Your task to perform on an android device: Open a new incognito tab in the chrome app Image 0: 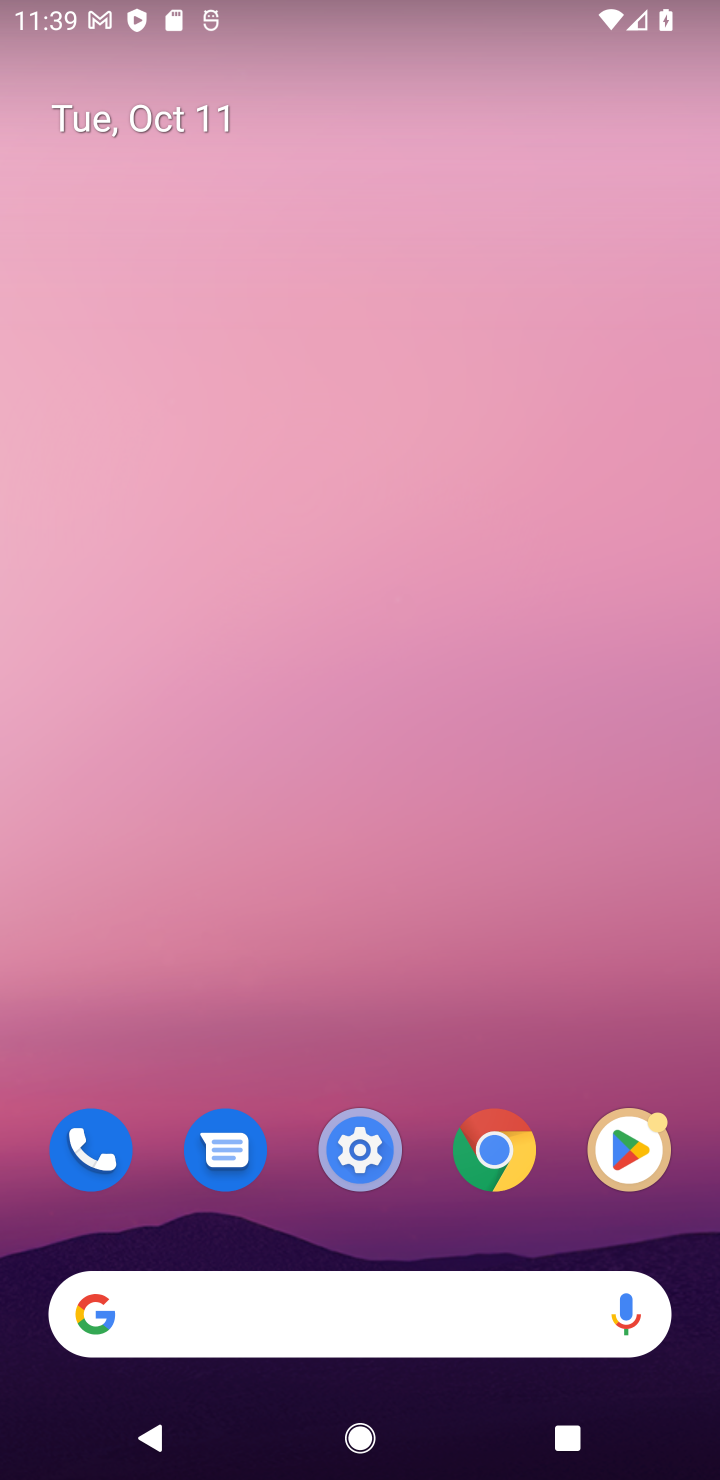
Step 0: press home button
Your task to perform on an android device: Open a new incognito tab in the chrome app Image 1: 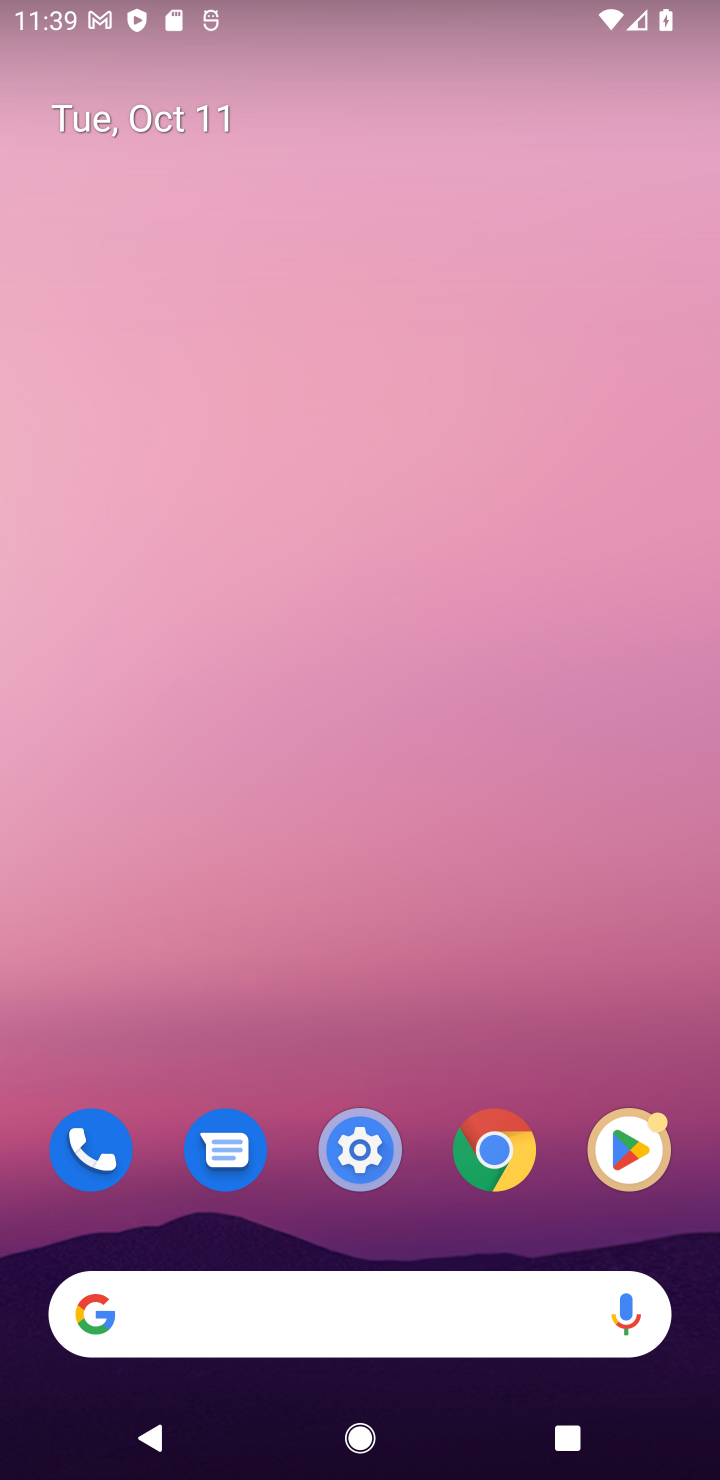
Step 1: click (491, 1161)
Your task to perform on an android device: Open a new incognito tab in the chrome app Image 2: 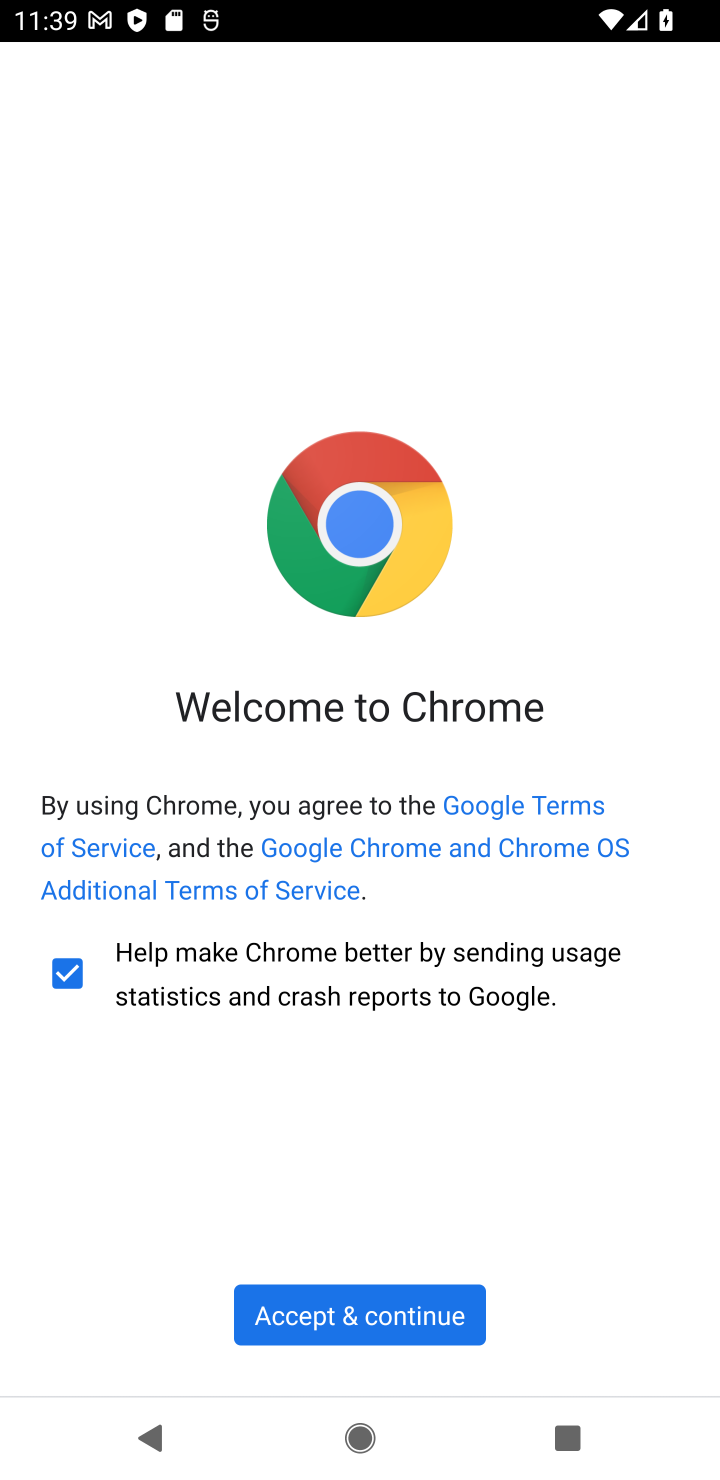
Step 2: click (404, 1297)
Your task to perform on an android device: Open a new incognito tab in the chrome app Image 3: 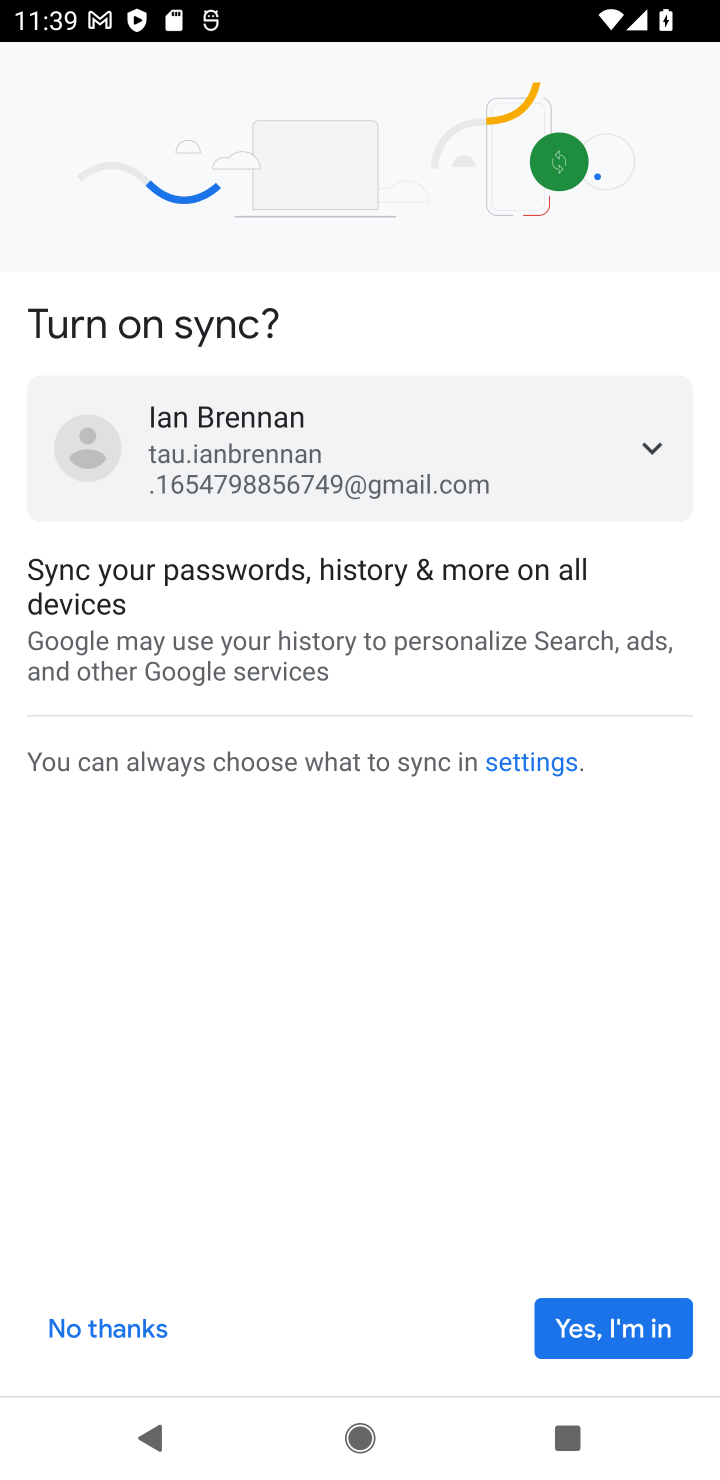
Step 3: click (578, 1345)
Your task to perform on an android device: Open a new incognito tab in the chrome app Image 4: 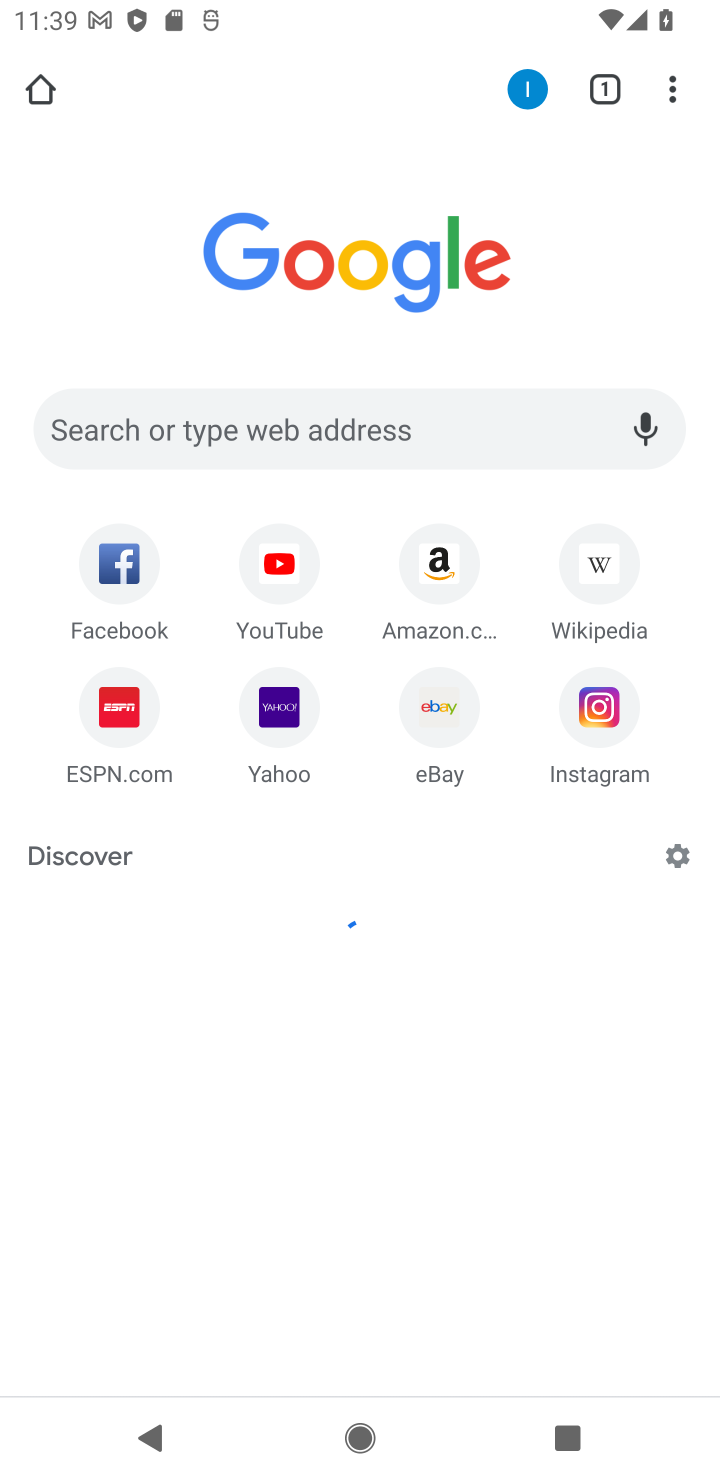
Step 4: click (671, 89)
Your task to perform on an android device: Open a new incognito tab in the chrome app Image 5: 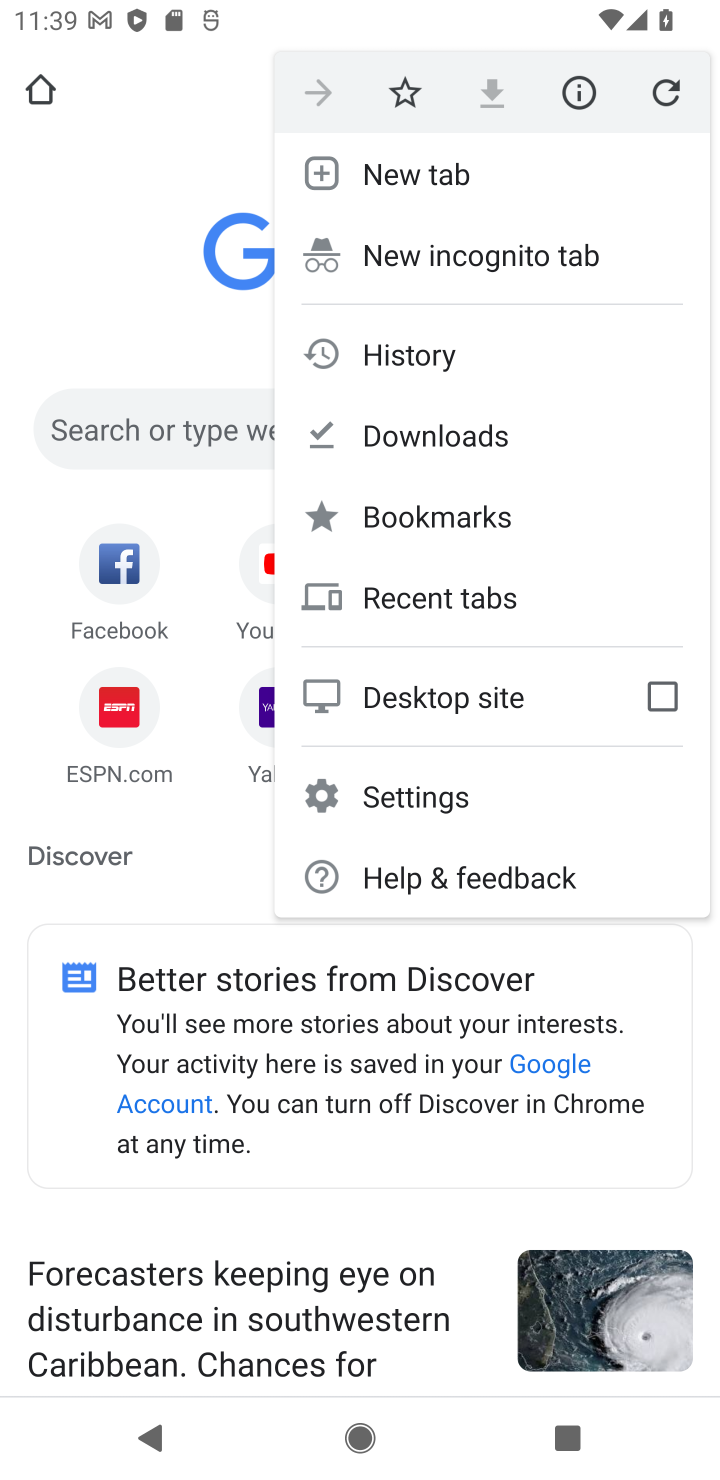
Step 5: click (430, 250)
Your task to perform on an android device: Open a new incognito tab in the chrome app Image 6: 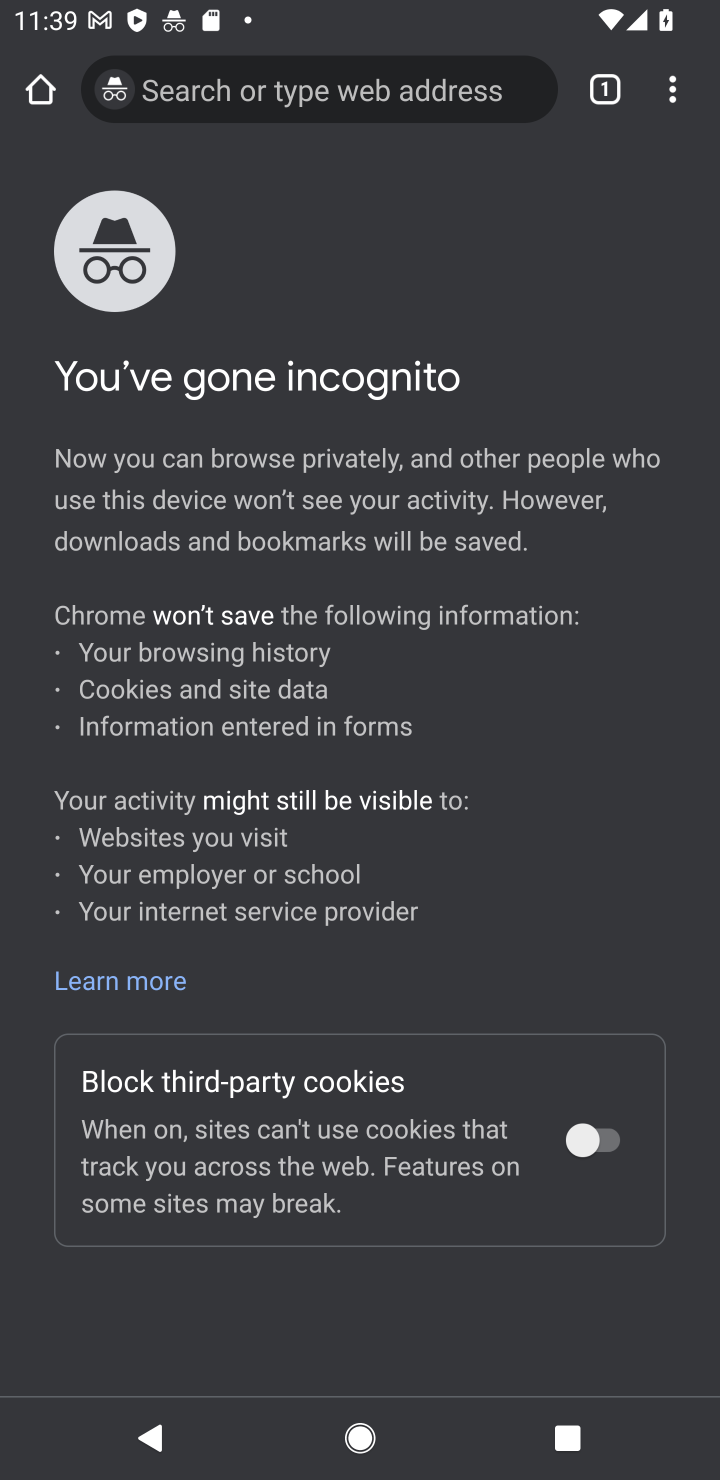
Step 6: task complete